Your task to perform on an android device: Go to Google maps Image 0: 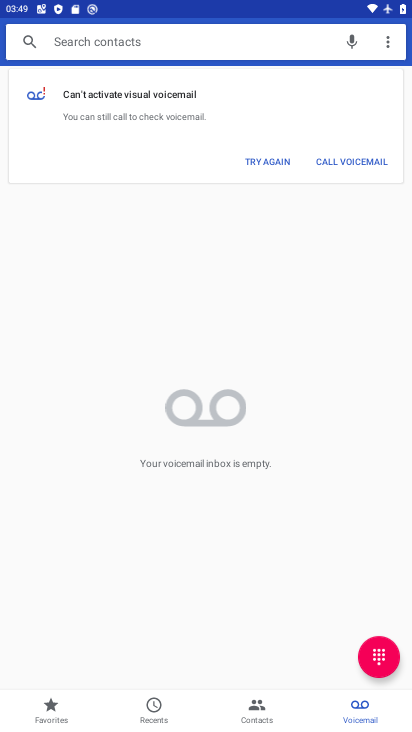
Step 0: press home button
Your task to perform on an android device: Go to Google maps Image 1: 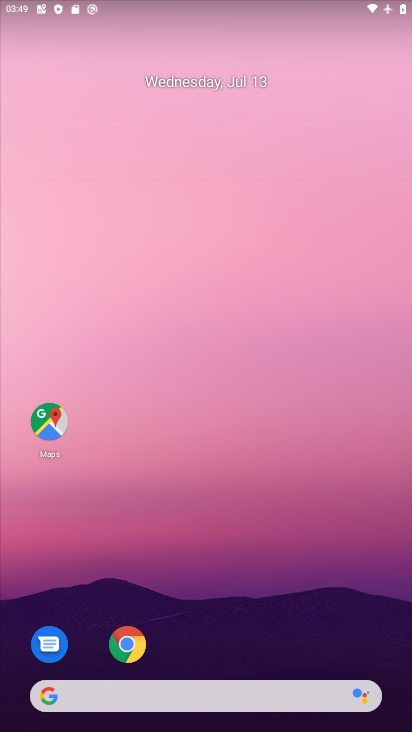
Step 1: click (40, 421)
Your task to perform on an android device: Go to Google maps Image 2: 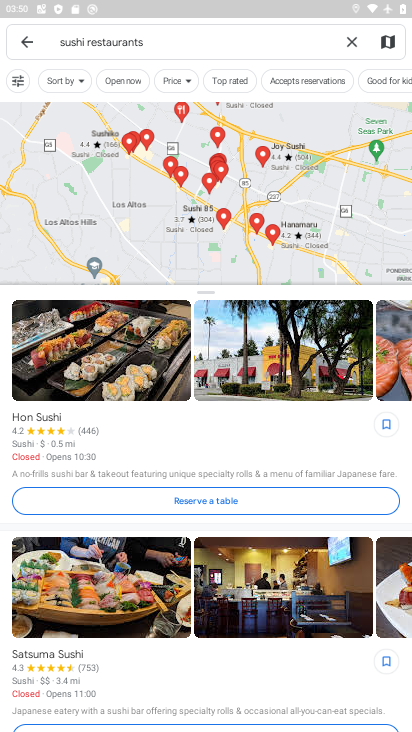
Step 2: task complete